Your task to perform on an android device: toggle notifications settings in the gmail app Image 0: 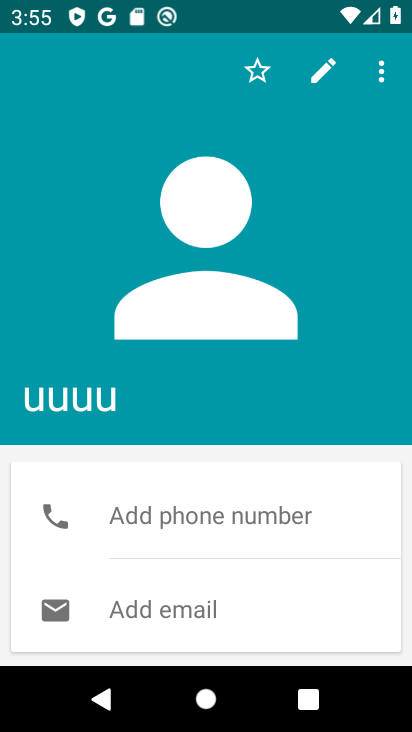
Step 0: press home button
Your task to perform on an android device: toggle notifications settings in the gmail app Image 1: 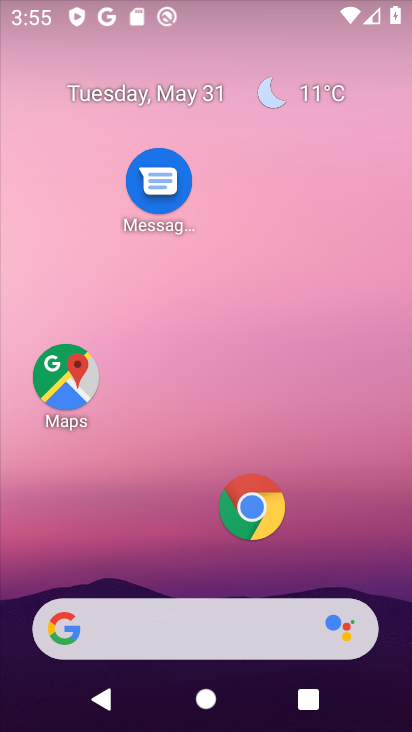
Step 1: drag from (283, 548) to (325, 89)
Your task to perform on an android device: toggle notifications settings in the gmail app Image 2: 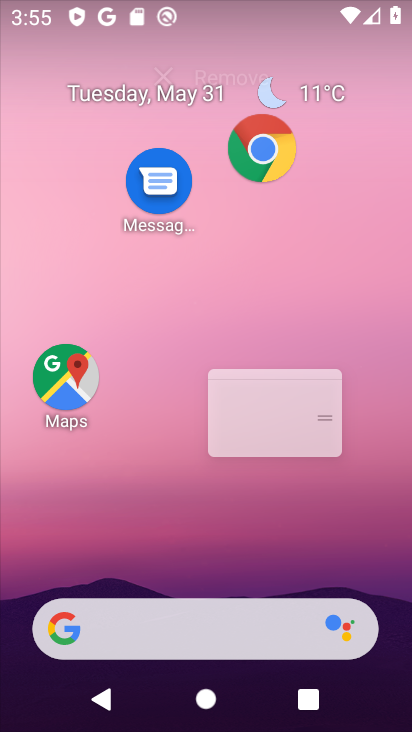
Step 2: click (172, 506)
Your task to perform on an android device: toggle notifications settings in the gmail app Image 3: 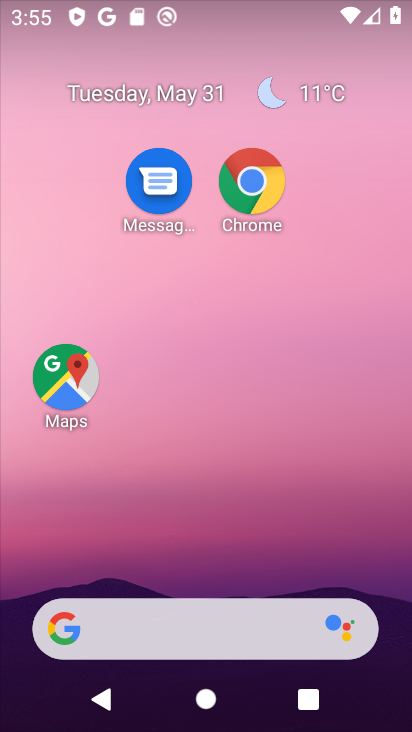
Step 3: drag from (181, 570) to (238, 3)
Your task to perform on an android device: toggle notifications settings in the gmail app Image 4: 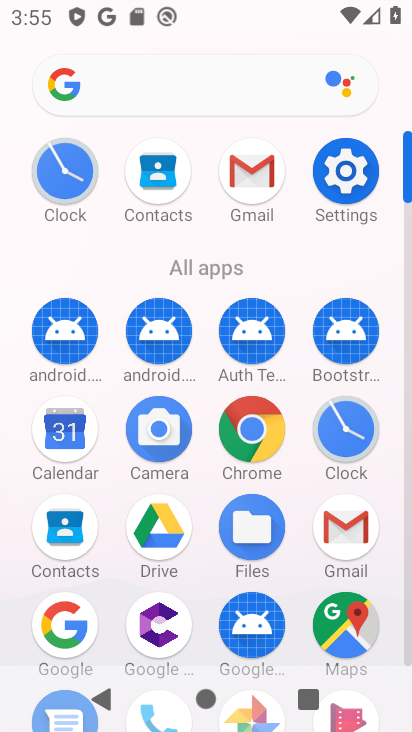
Step 4: click (250, 168)
Your task to perform on an android device: toggle notifications settings in the gmail app Image 5: 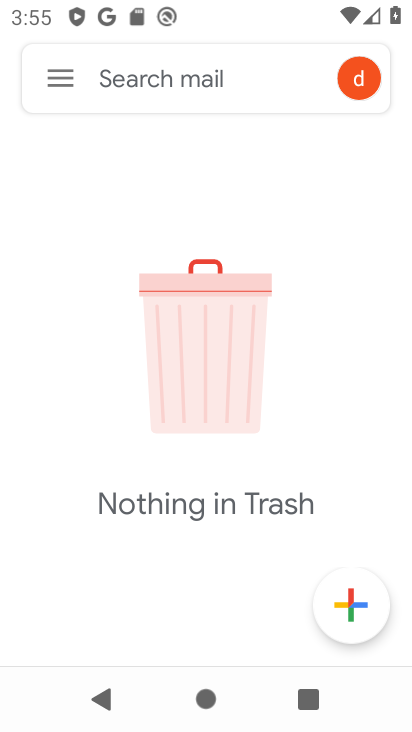
Step 5: click (55, 76)
Your task to perform on an android device: toggle notifications settings in the gmail app Image 6: 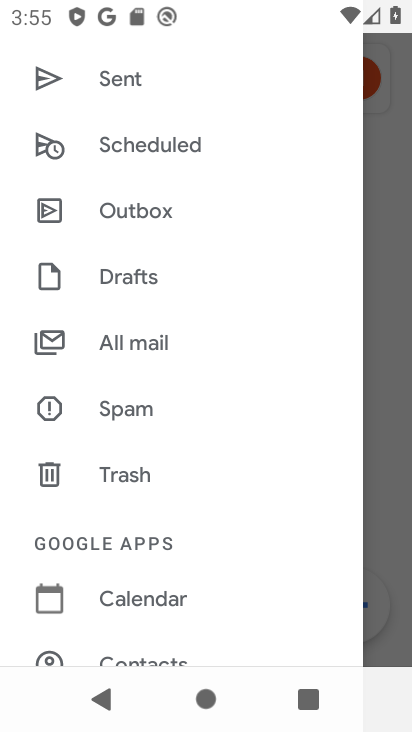
Step 6: drag from (178, 585) to (237, 280)
Your task to perform on an android device: toggle notifications settings in the gmail app Image 7: 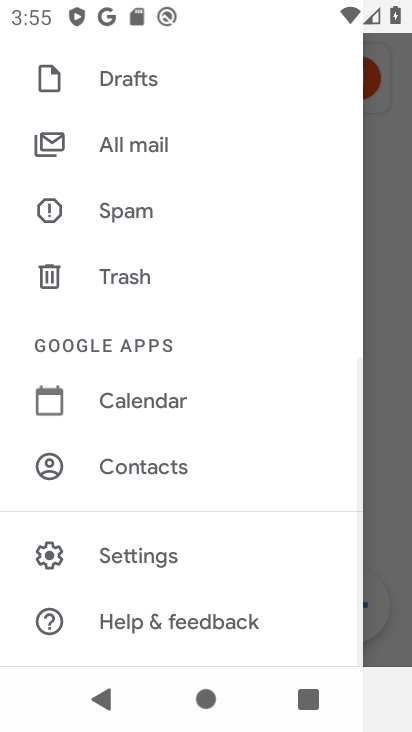
Step 7: click (149, 562)
Your task to perform on an android device: toggle notifications settings in the gmail app Image 8: 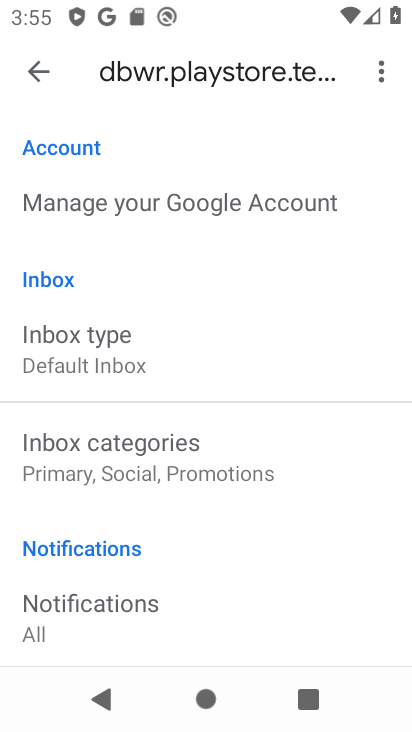
Step 8: click (105, 607)
Your task to perform on an android device: toggle notifications settings in the gmail app Image 9: 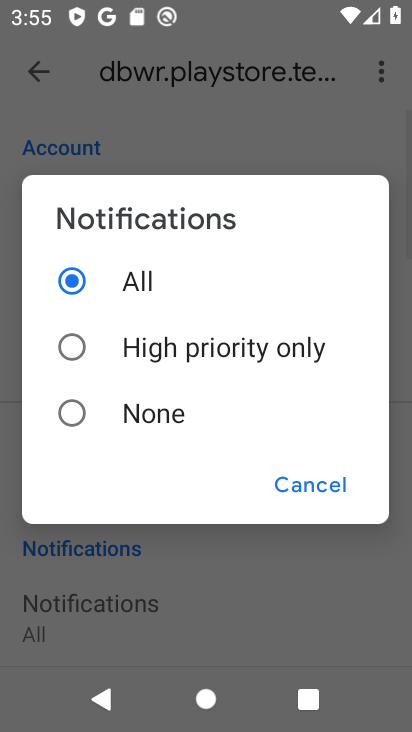
Step 9: click (81, 405)
Your task to perform on an android device: toggle notifications settings in the gmail app Image 10: 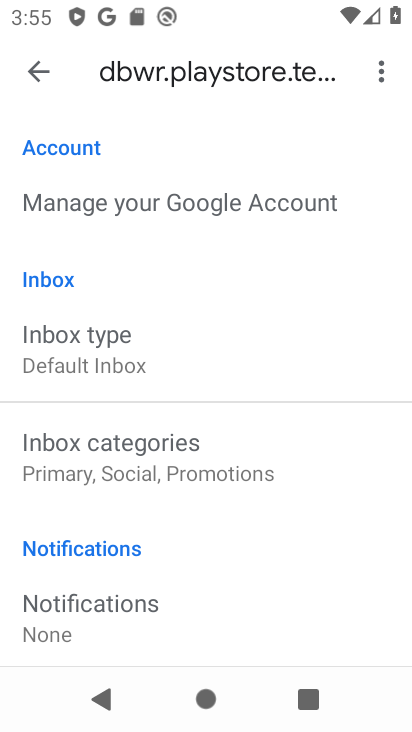
Step 10: task complete